Your task to perform on an android device: Search for vegetarian restaurants on Maps Image 0: 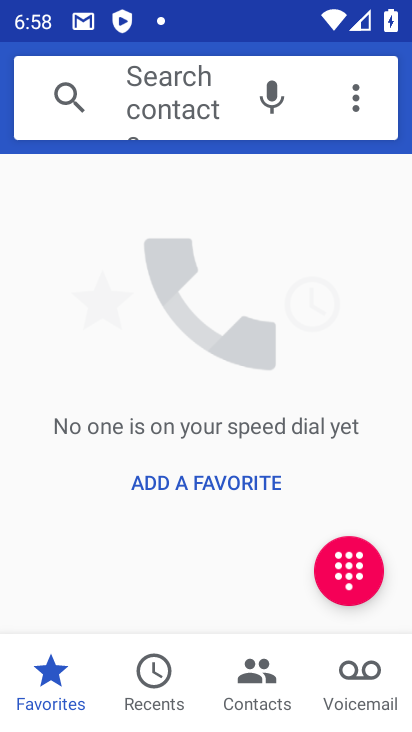
Step 0: press home button
Your task to perform on an android device: Search for vegetarian restaurants on Maps Image 1: 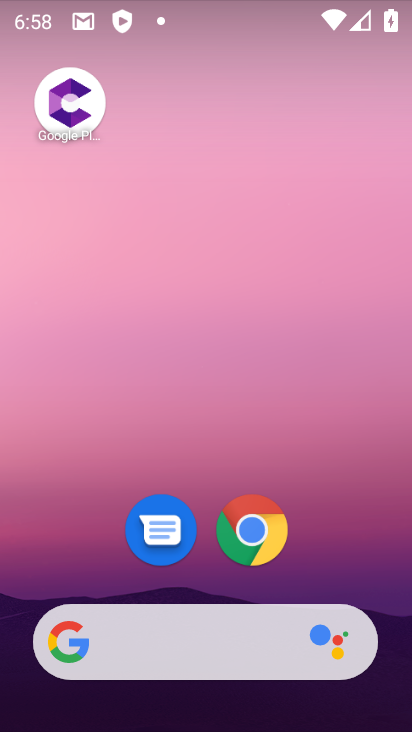
Step 1: drag from (256, 668) to (321, 169)
Your task to perform on an android device: Search for vegetarian restaurants on Maps Image 2: 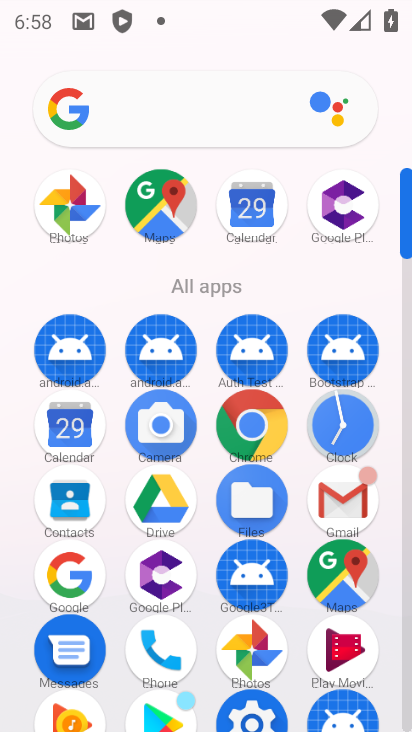
Step 2: click (169, 198)
Your task to perform on an android device: Search for vegetarian restaurants on Maps Image 3: 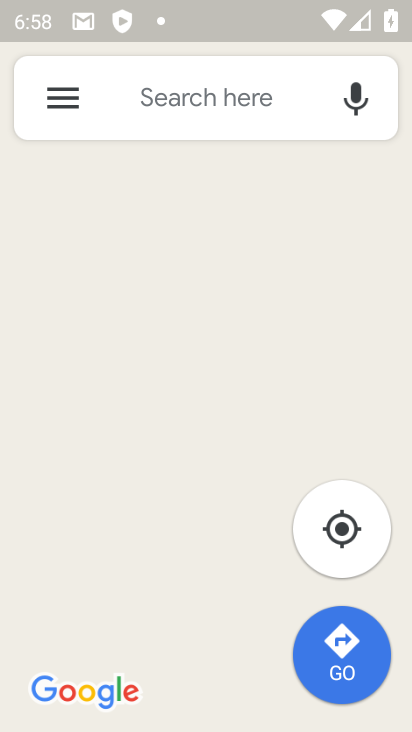
Step 3: click (182, 95)
Your task to perform on an android device: Search for vegetarian restaurants on Maps Image 4: 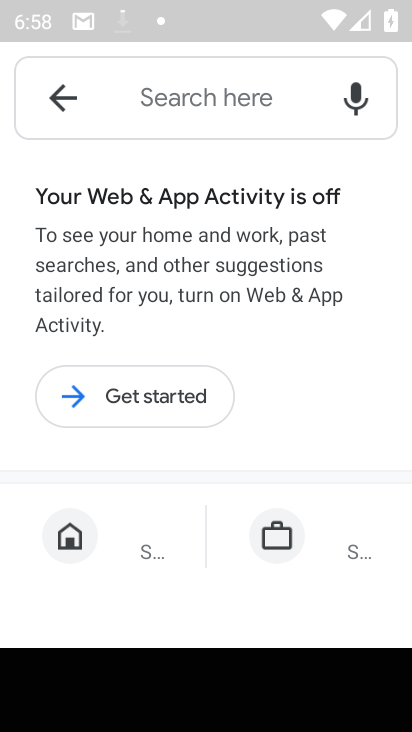
Step 4: click (144, 406)
Your task to perform on an android device: Search for vegetarian restaurants on Maps Image 5: 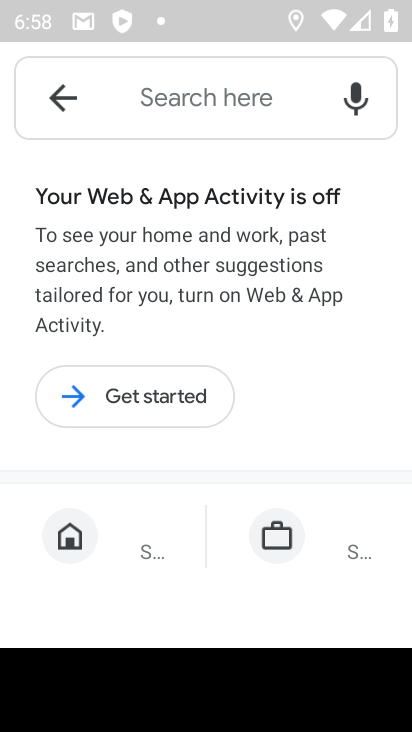
Step 5: click (132, 393)
Your task to perform on an android device: Search for vegetarian restaurants on Maps Image 6: 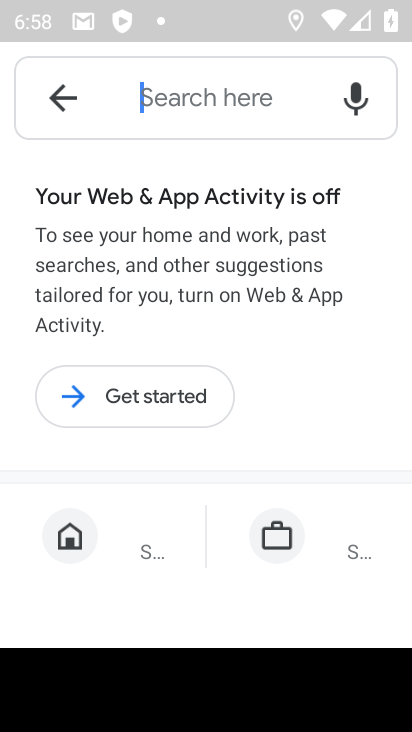
Step 6: click (162, 383)
Your task to perform on an android device: Search for vegetarian restaurants on Maps Image 7: 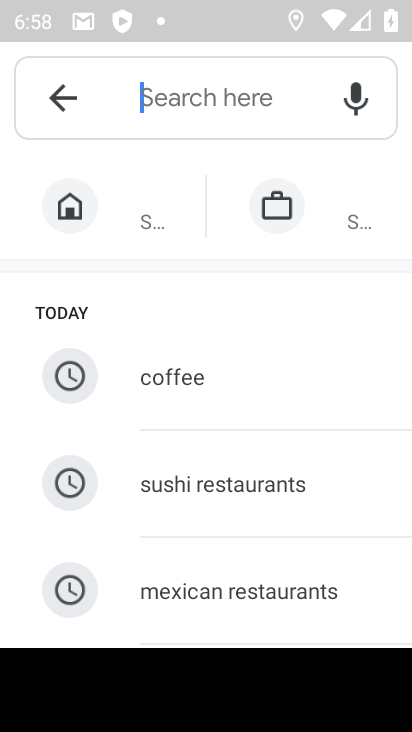
Step 7: click (186, 103)
Your task to perform on an android device: Search for vegetarian restaurants on Maps Image 8: 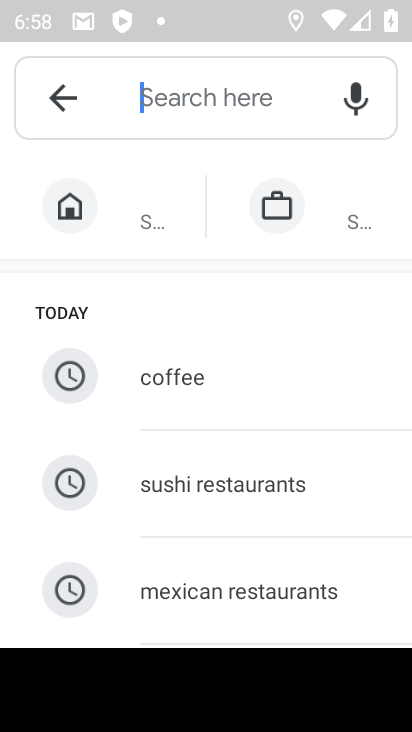
Step 8: drag from (382, 692) to (322, 517)
Your task to perform on an android device: Search for vegetarian restaurants on Maps Image 9: 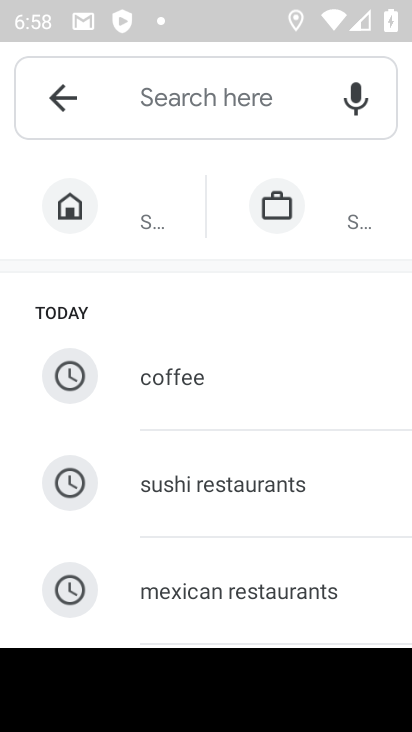
Step 9: drag from (378, 703) to (361, 597)
Your task to perform on an android device: Search for vegetarian restaurants on Maps Image 10: 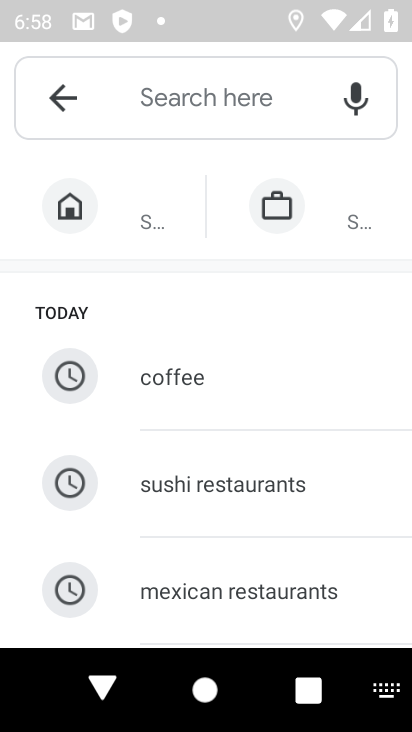
Step 10: click (398, 702)
Your task to perform on an android device: Search for vegetarian restaurants on Maps Image 11: 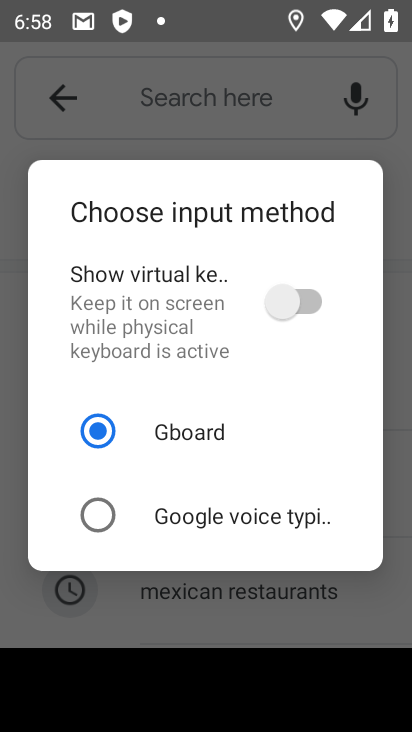
Step 11: click (299, 310)
Your task to perform on an android device: Search for vegetarian restaurants on Maps Image 12: 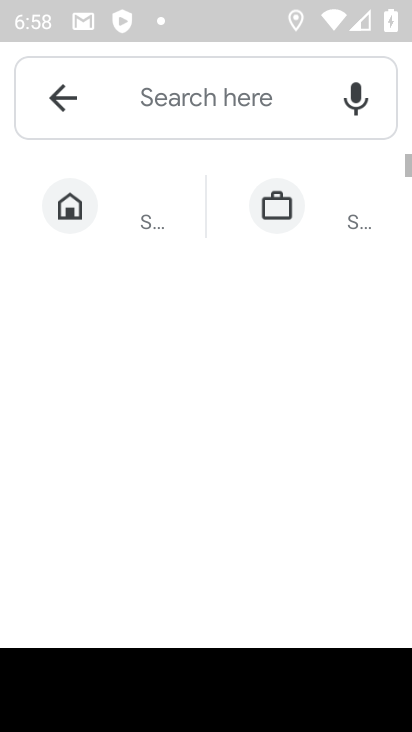
Step 12: click (187, 100)
Your task to perform on an android device: Search for vegetarian restaurants on Maps Image 13: 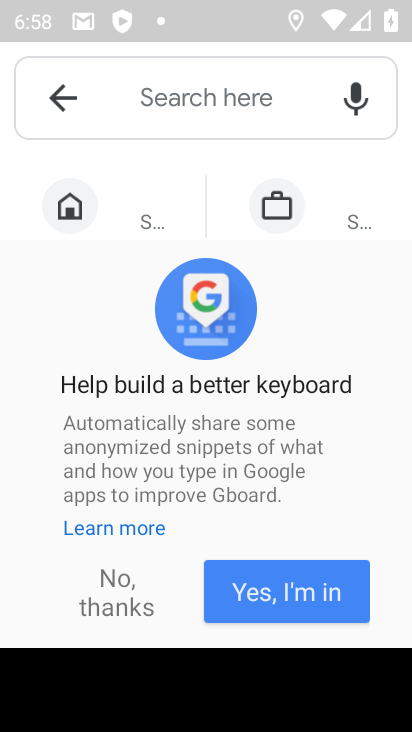
Step 13: click (127, 598)
Your task to perform on an android device: Search for vegetarian restaurants on Maps Image 14: 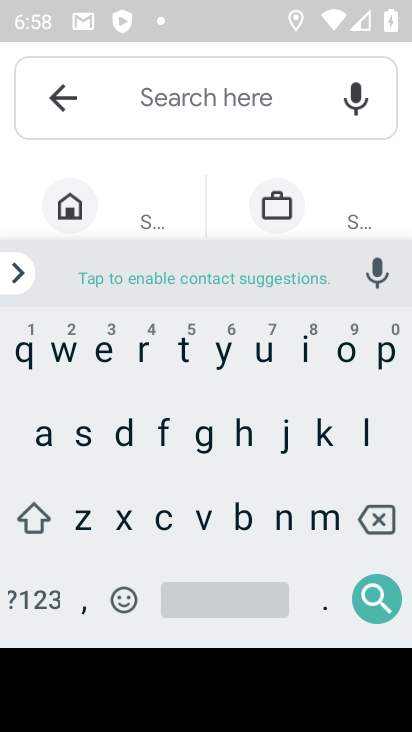
Step 14: click (208, 530)
Your task to perform on an android device: Search for vegetarian restaurants on Maps Image 15: 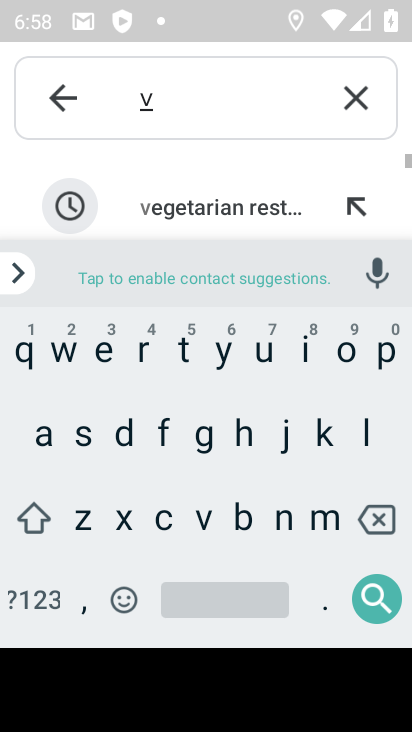
Step 15: click (102, 370)
Your task to perform on an android device: Search for vegetarian restaurants on Maps Image 16: 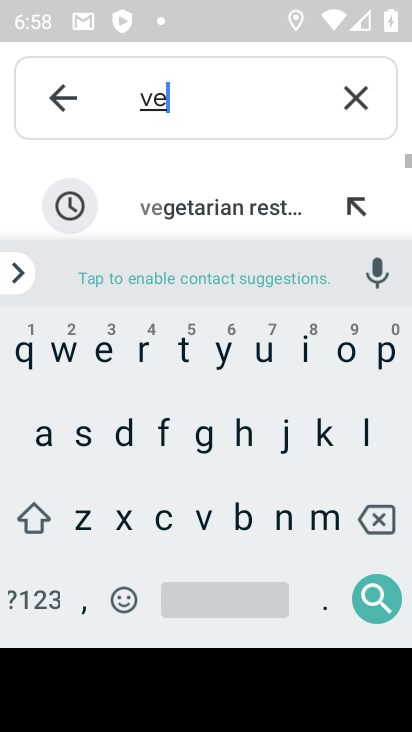
Step 16: click (220, 203)
Your task to perform on an android device: Search for vegetarian restaurants on Maps Image 17: 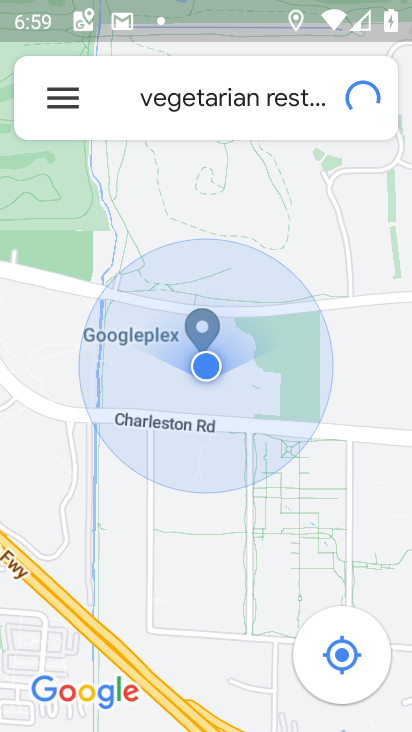
Step 17: task complete